Your task to perform on an android device: What's the weather going to be this weekend? Image 0: 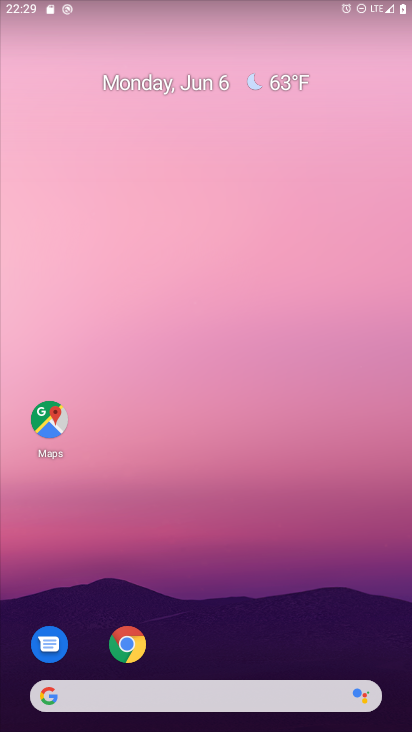
Step 0: drag from (253, 716) to (176, 248)
Your task to perform on an android device: What's the weather going to be this weekend? Image 1: 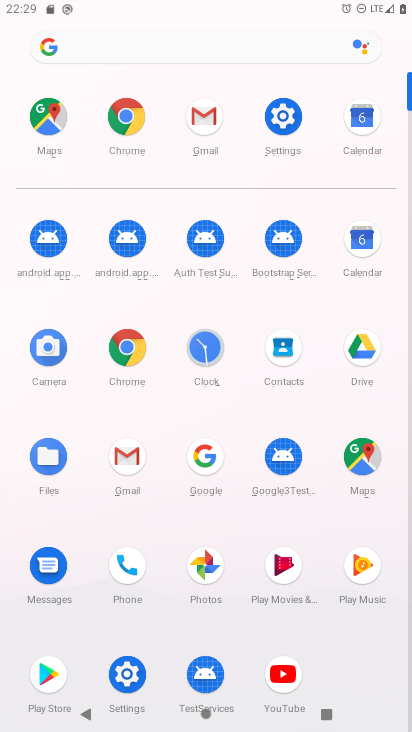
Step 1: click (101, 47)
Your task to perform on an android device: What's the weather going to be this weekend? Image 2: 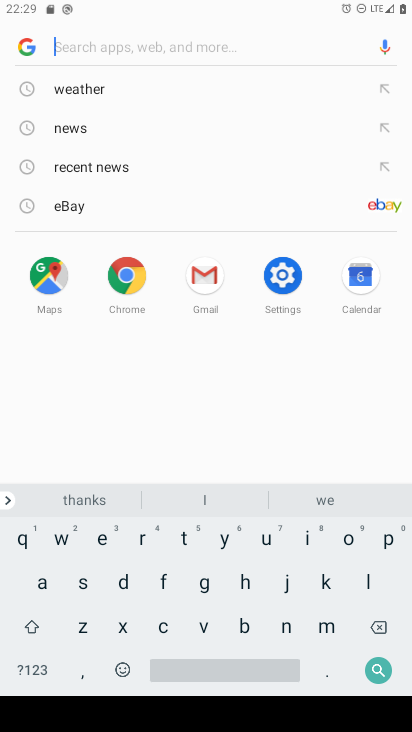
Step 2: click (103, 93)
Your task to perform on an android device: What's the weather going to be this weekend? Image 3: 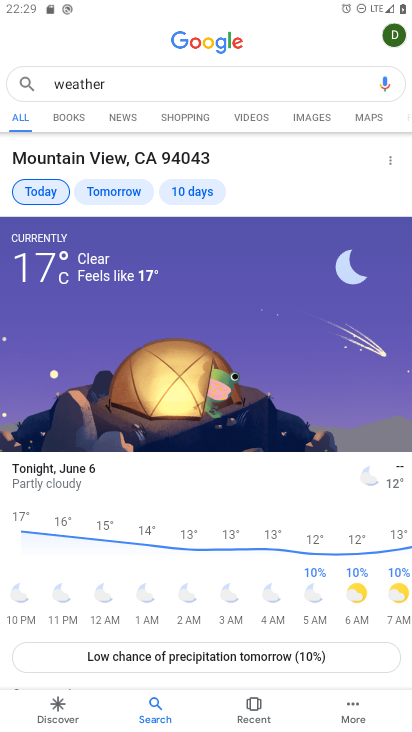
Step 3: click (199, 196)
Your task to perform on an android device: What's the weather going to be this weekend? Image 4: 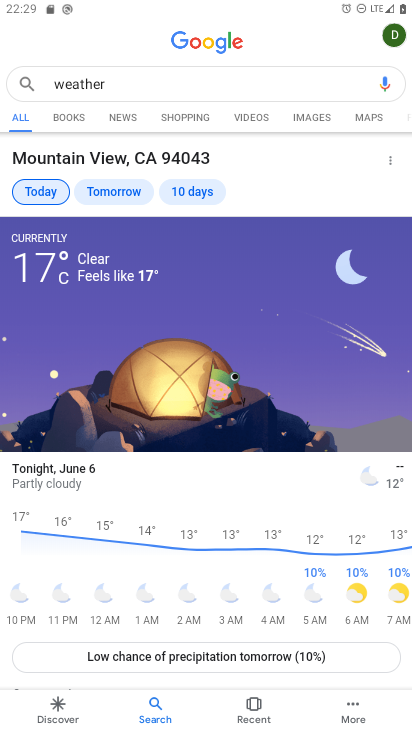
Step 4: click (199, 196)
Your task to perform on an android device: What's the weather going to be this weekend? Image 5: 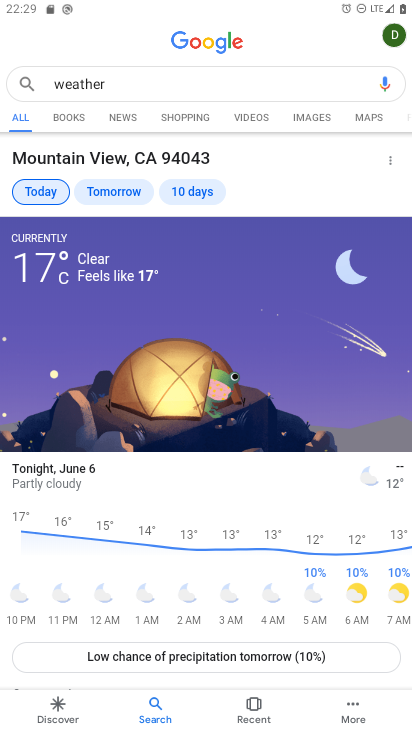
Step 5: click (137, 84)
Your task to perform on an android device: What's the weather going to be this weekend? Image 6: 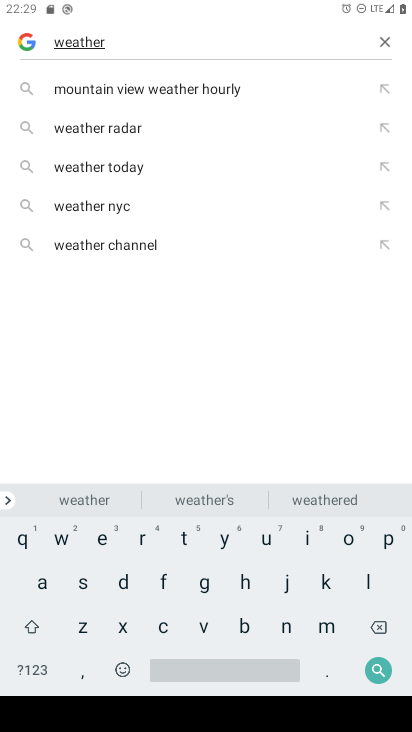
Step 6: click (230, 679)
Your task to perform on an android device: What's the weather going to be this weekend? Image 7: 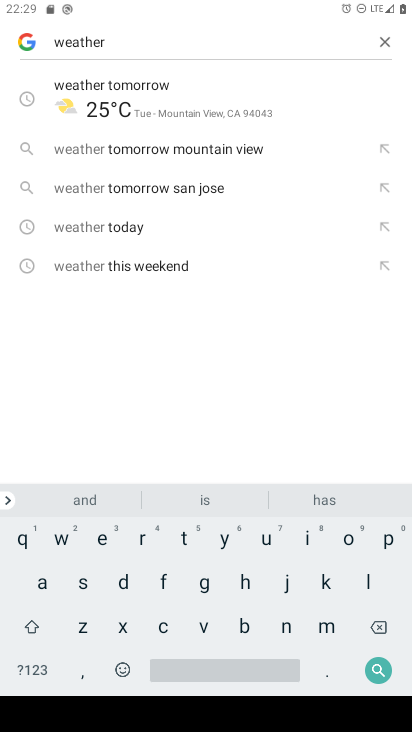
Step 7: click (58, 538)
Your task to perform on an android device: What's the weather going to be this weekend? Image 8: 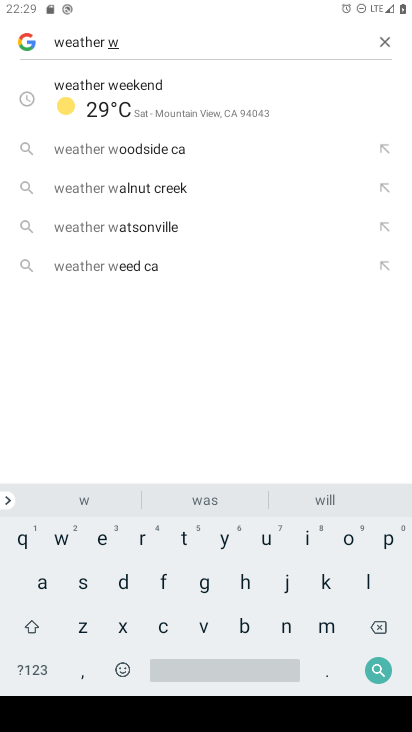
Step 8: click (165, 86)
Your task to perform on an android device: What's the weather going to be this weekend? Image 9: 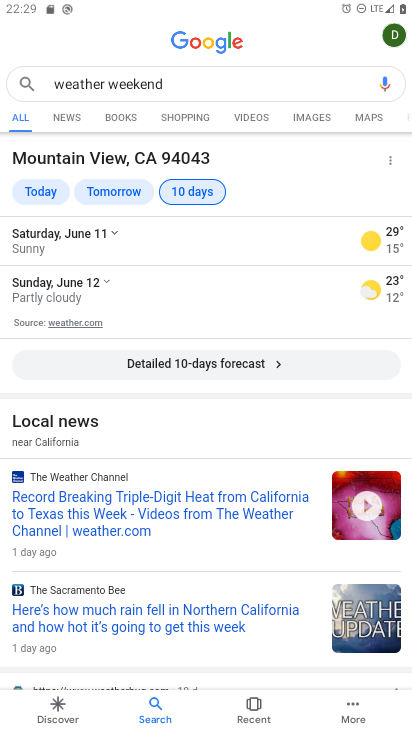
Step 9: click (225, 358)
Your task to perform on an android device: What's the weather going to be this weekend? Image 10: 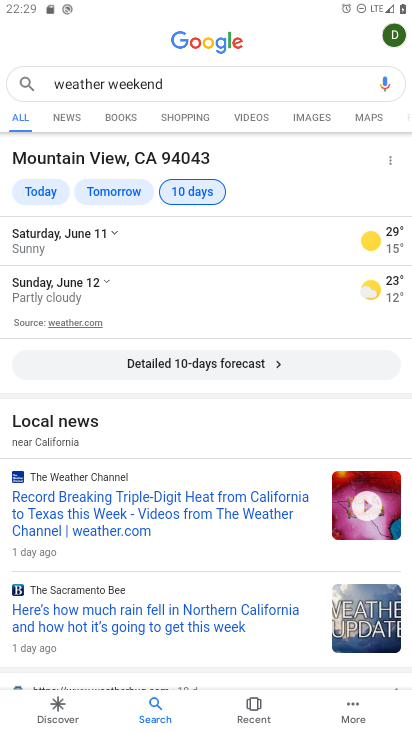
Step 10: click (225, 358)
Your task to perform on an android device: What's the weather going to be this weekend? Image 11: 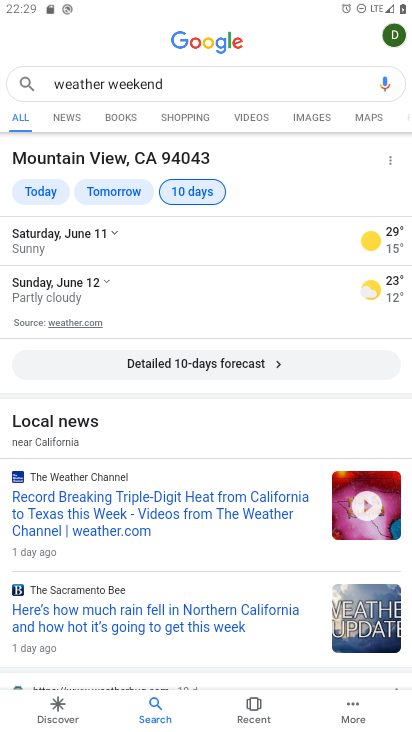
Step 11: click (172, 191)
Your task to perform on an android device: What's the weather going to be this weekend? Image 12: 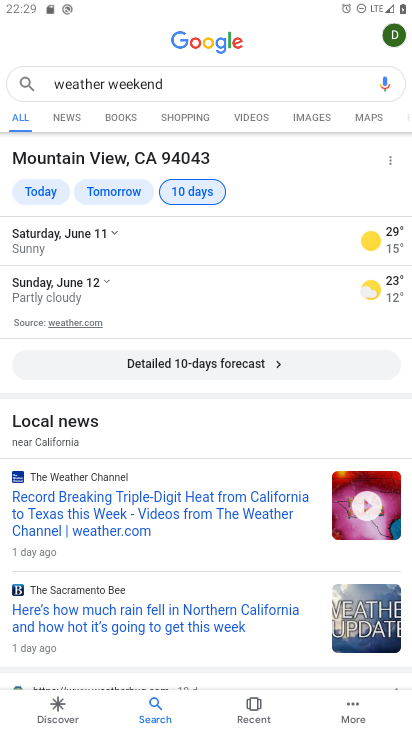
Step 12: task complete